Your task to perform on an android device: Go to display settings Image 0: 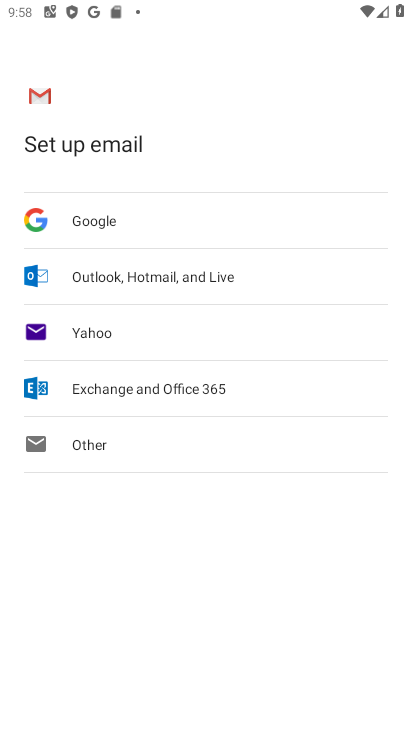
Step 0: press home button
Your task to perform on an android device: Go to display settings Image 1: 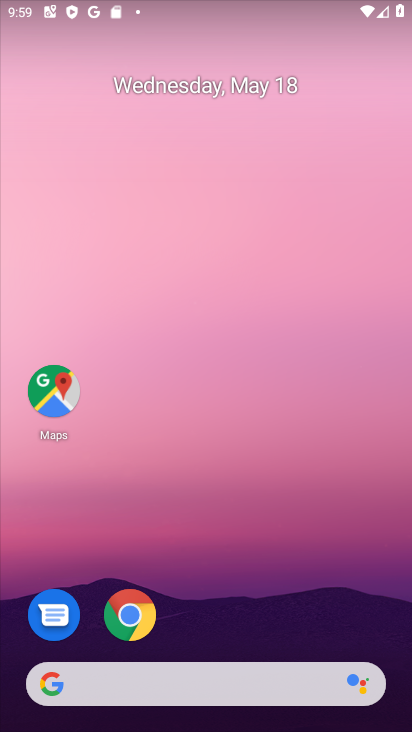
Step 1: drag from (247, 647) to (235, 32)
Your task to perform on an android device: Go to display settings Image 2: 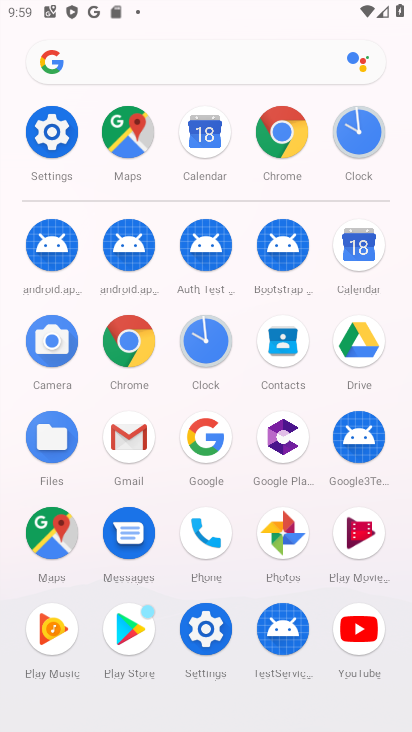
Step 2: click (203, 617)
Your task to perform on an android device: Go to display settings Image 3: 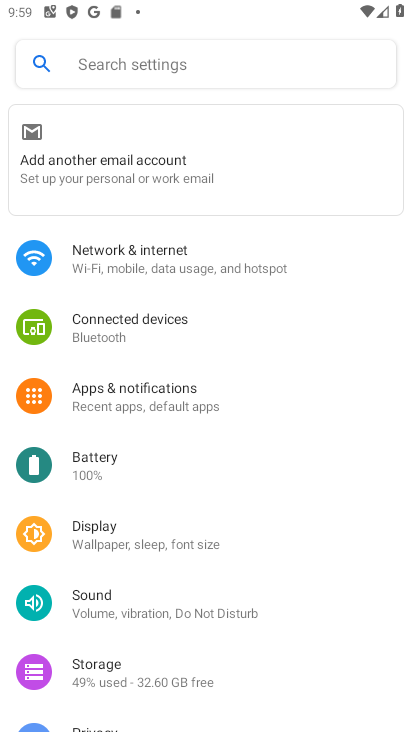
Step 3: task complete